Your task to perform on an android device: Go to ESPN.com Image 0: 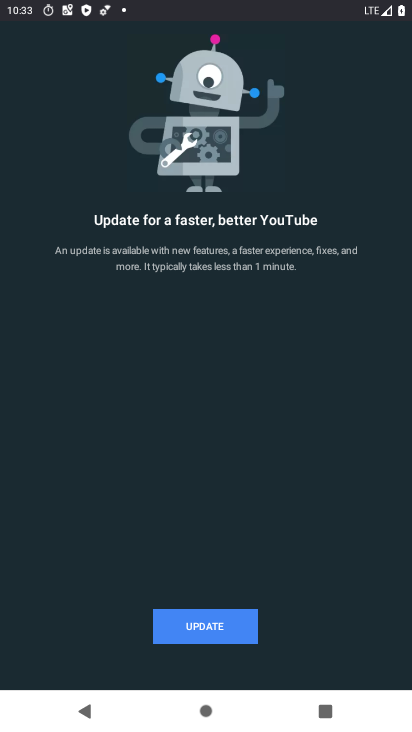
Step 0: drag from (228, 605) to (140, 412)
Your task to perform on an android device: Go to ESPN.com Image 1: 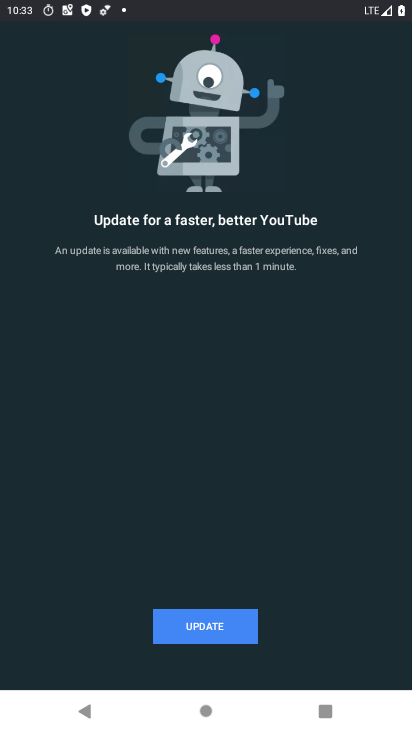
Step 1: press home button
Your task to perform on an android device: Go to ESPN.com Image 2: 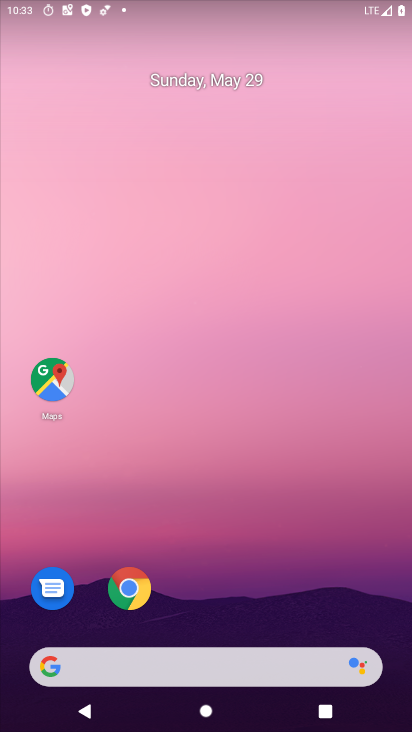
Step 2: drag from (322, 603) to (313, 224)
Your task to perform on an android device: Go to ESPN.com Image 3: 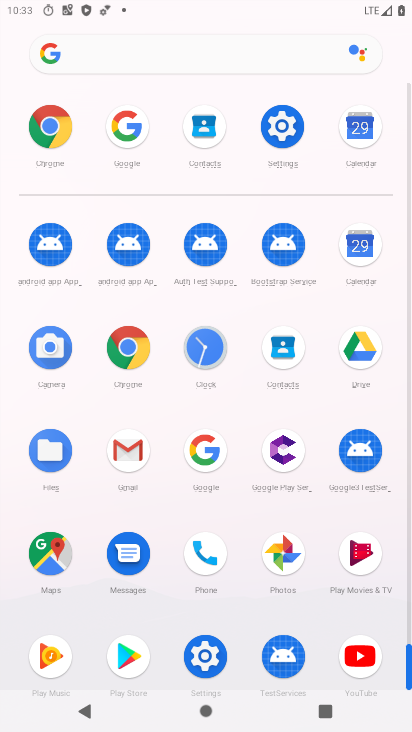
Step 3: click (143, 354)
Your task to perform on an android device: Go to ESPN.com Image 4: 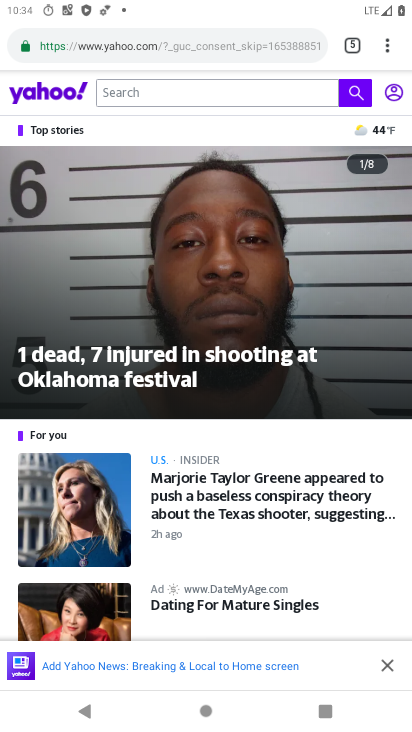
Step 4: task complete